Your task to perform on an android device: open chrome privacy settings Image 0: 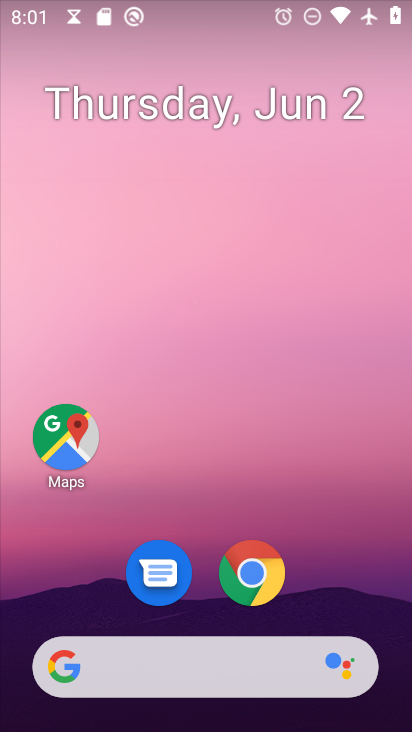
Step 0: click (259, 579)
Your task to perform on an android device: open chrome privacy settings Image 1: 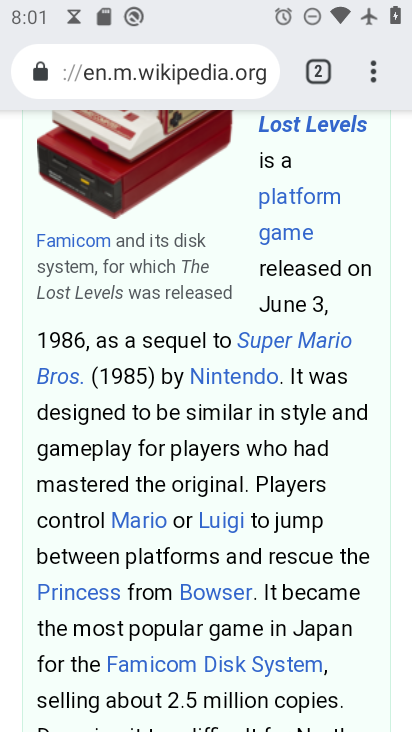
Step 1: drag from (374, 75) to (169, 570)
Your task to perform on an android device: open chrome privacy settings Image 2: 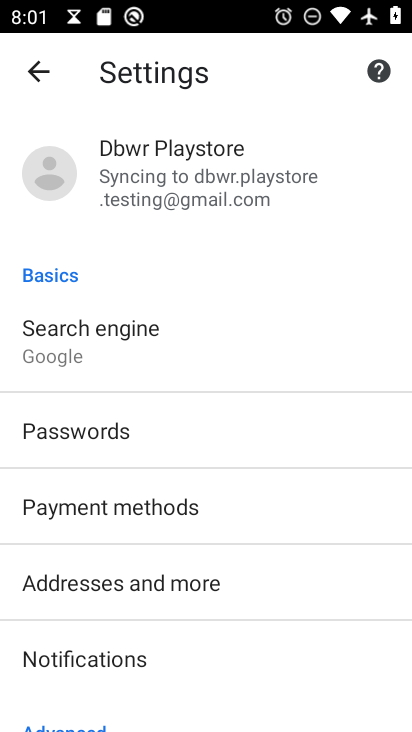
Step 2: drag from (200, 631) to (295, 163)
Your task to perform on an android device: open chrome privacy settings Image 3: 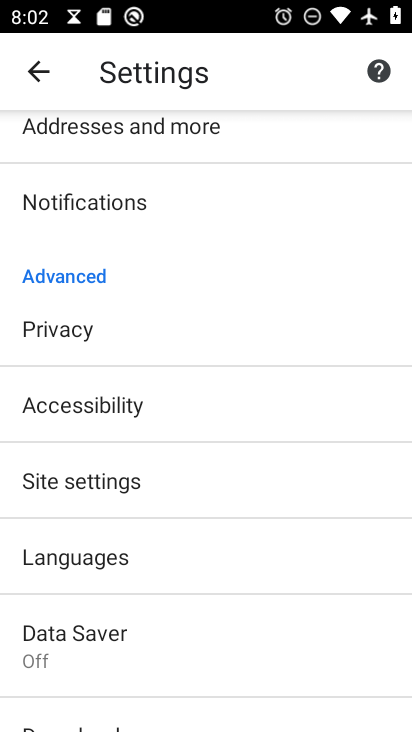
Step 3: click (67, 335)
Your task to perform on an android device: open chrome privacy settings Image 4: 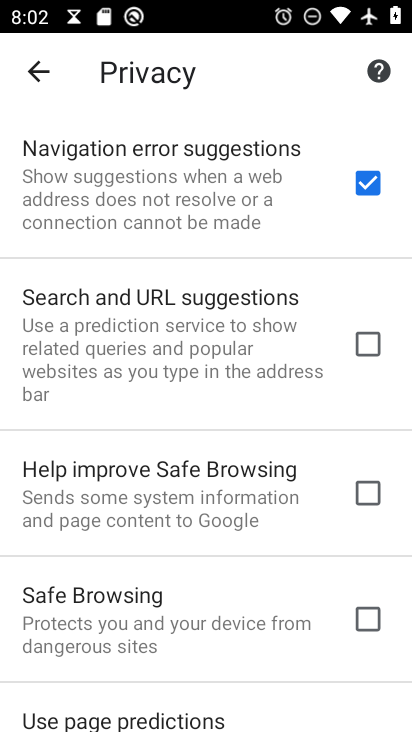
Step 4: task complete